Your task to perform on an android device: Open calendar and show me the first week of next month Image 0: 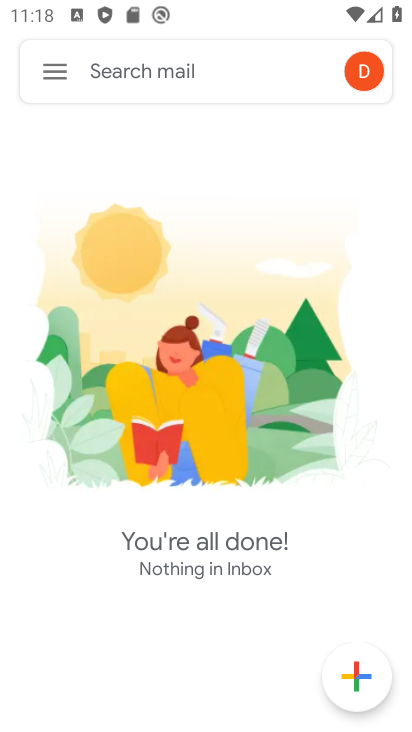
Step 0: press home button
Your task to perform on an android device: Open calendar and show me the first week of next month Image 1: 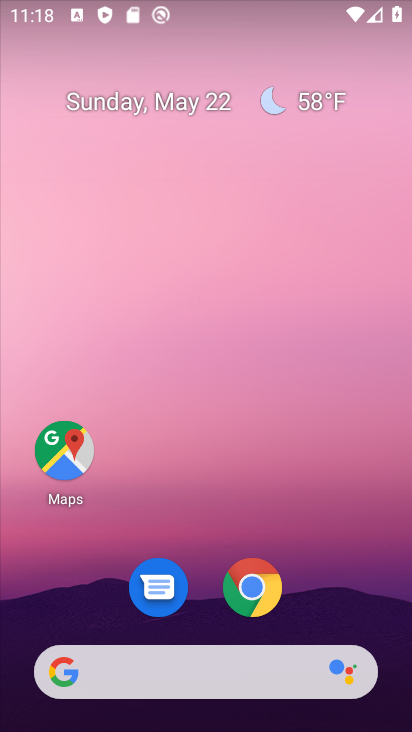
Step 1: drag from (195, 474) to (203, 48)
Your task to perform on an android device: Open calendar and show me the first week of next month Image 2: 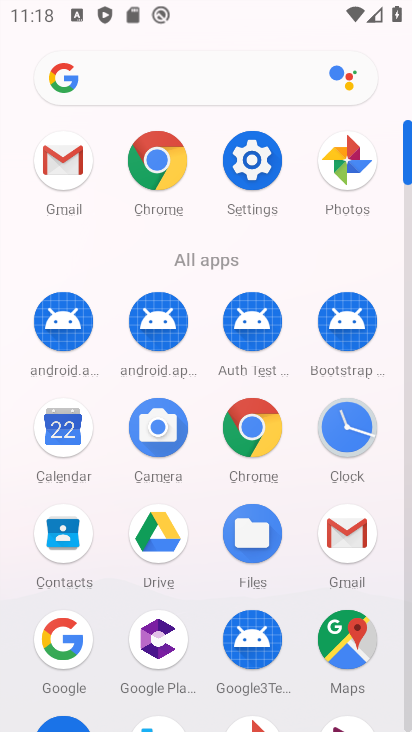
Step 2: click (70, 429)
Your task to perform on an android device: Open calendar and show me the first week of next month Image 3: 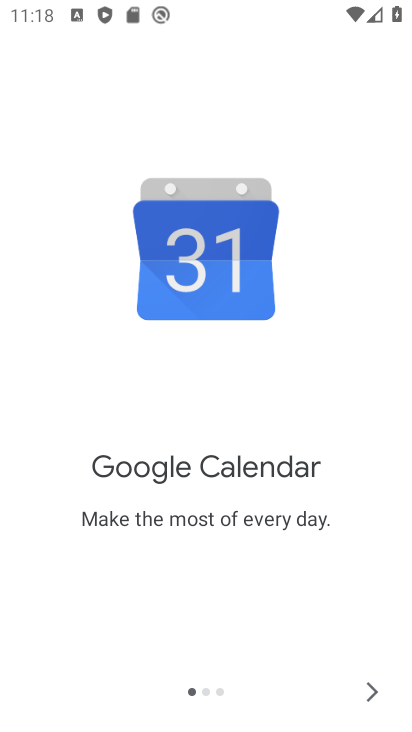
Step 3: click (367, 692)
Your task to perform on an android device: Open calendar and show me the first week of next month Image 4: 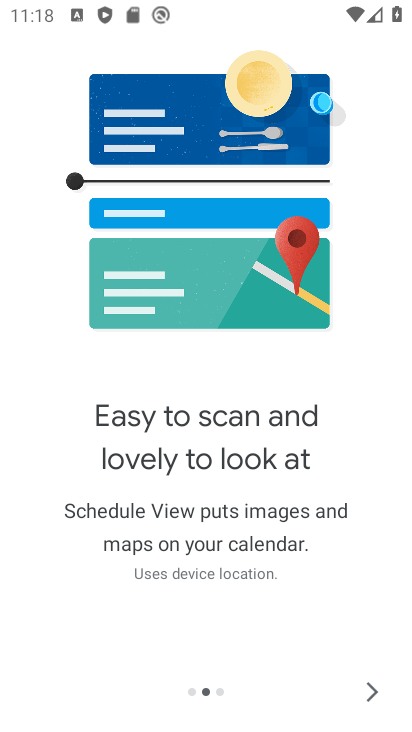
Step 4: click (367, 692)
Your task to perform on an android device: Open calendar and show me the first week of next month Image 5: 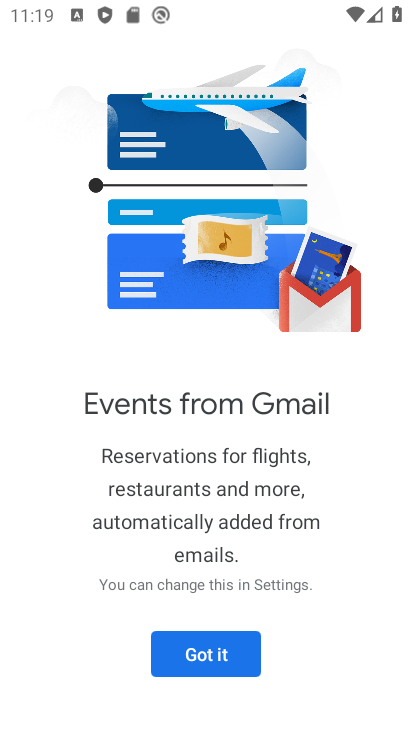
Step 5: click (243, 659)
Your task to perform on an android device: Open calendar and show me the first week of next month Image 6: 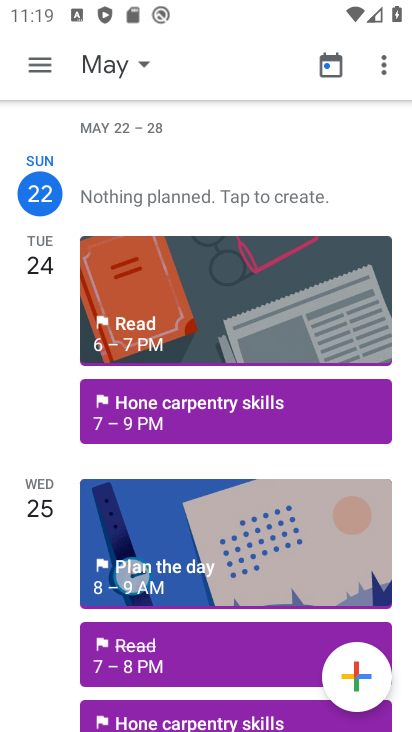
Step 6: click (40, 56)
Your task to perform on an android device: Open calendar and show me the first week of next month Image 7: 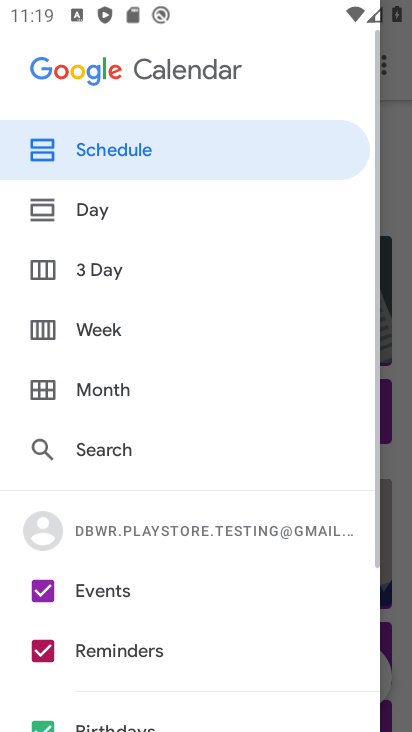
Step 7: click (60, 327)
Your task to perform on an android device: Open calendar and show me the first week of next month Image 8: 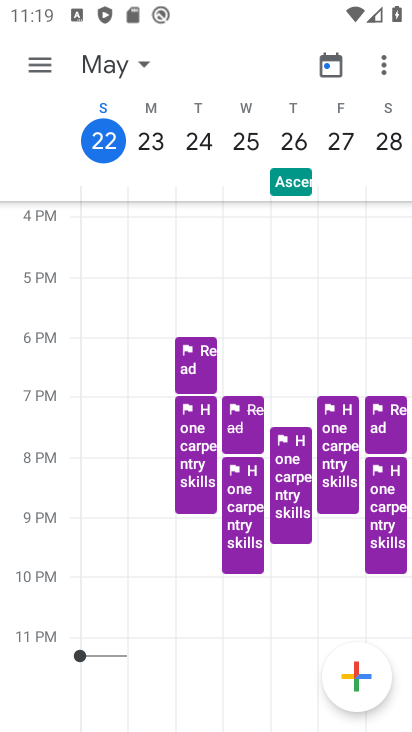
Step 8: task complete